Your task to perform on an android device: check google app version Image 0: 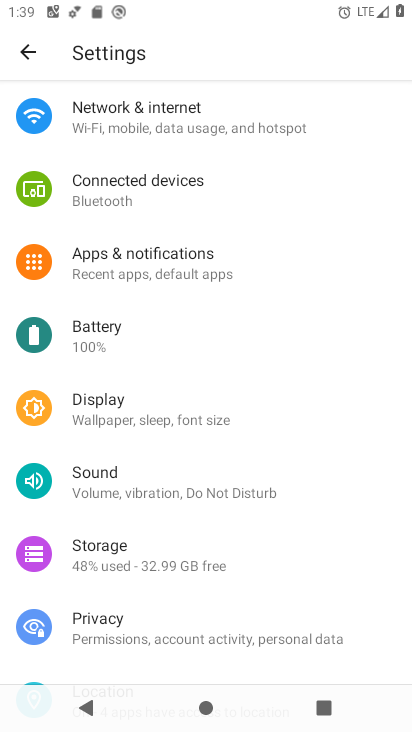
Step 0: press home button
Your task to perform on an android device: check google app version Image 1: 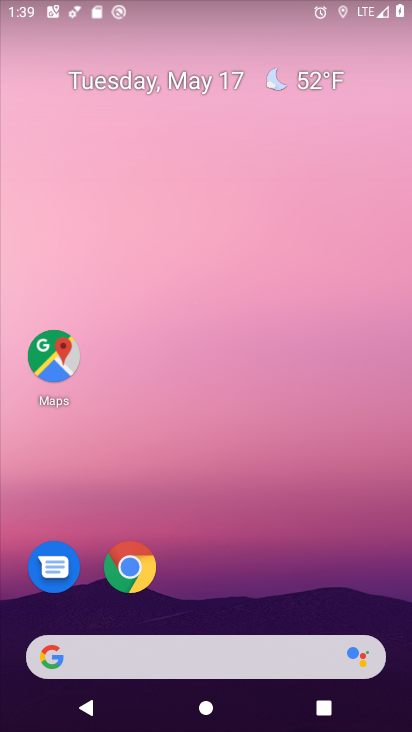
Step 1: drag from (251, 17) to (261, 158)
Your task to perform on an android device: check google app version Image 2: 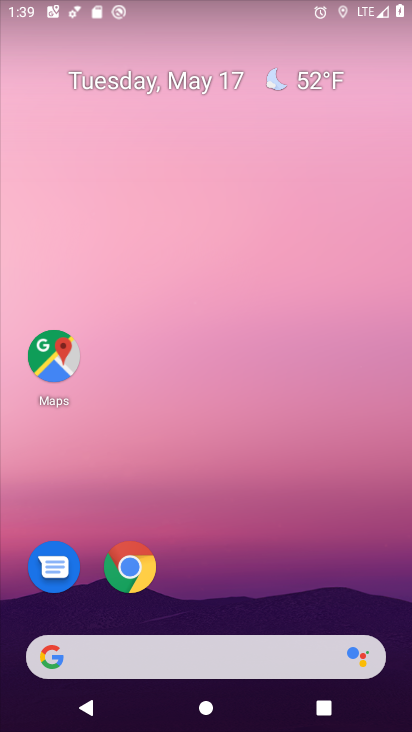
Step 2: drag from (189, 594) to (236, 36)
Your task to perform on an android device: check google app version Image 3: 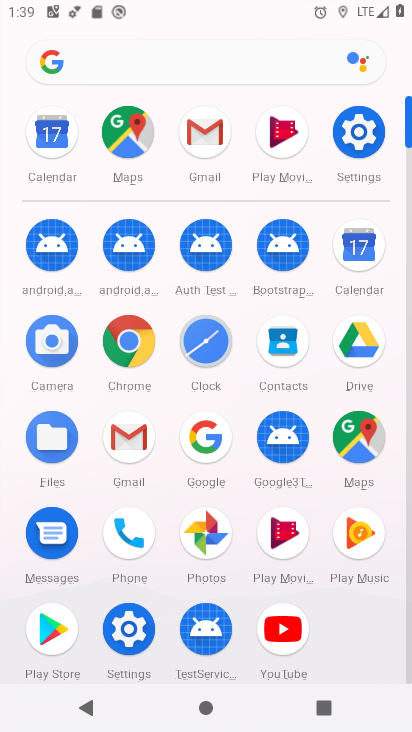
Step 3: click (208, 464)
Your task to perform on an android device: check google app version Image 4: 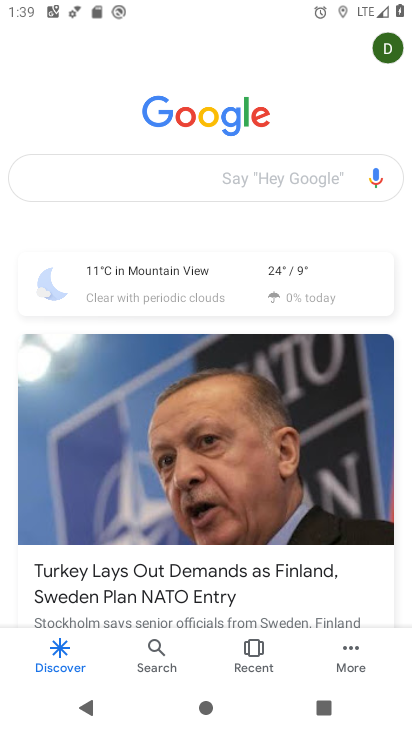
Step 4: click (340, 674)
Your task to perform on an android device: check google app version Image 5: 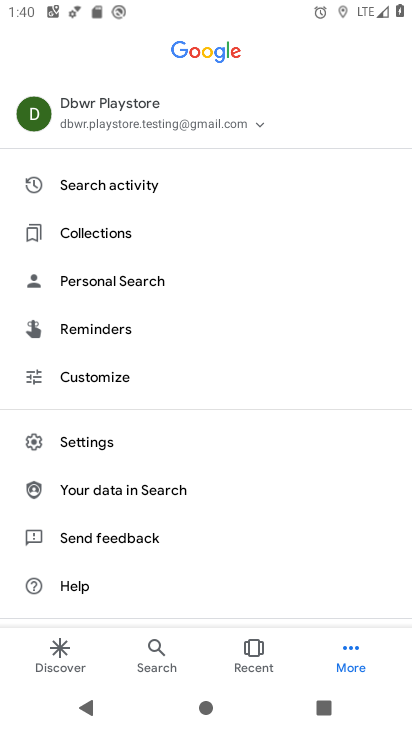
Step 5: click (106, 439)
Your task to perform on an android device: check google app version Image 6: 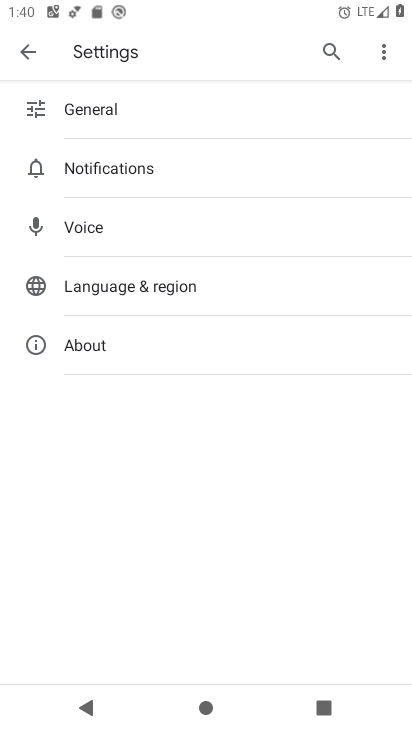
Step 6: click (90, 355)
Your task to perform on an android device: check google app version Image 7: 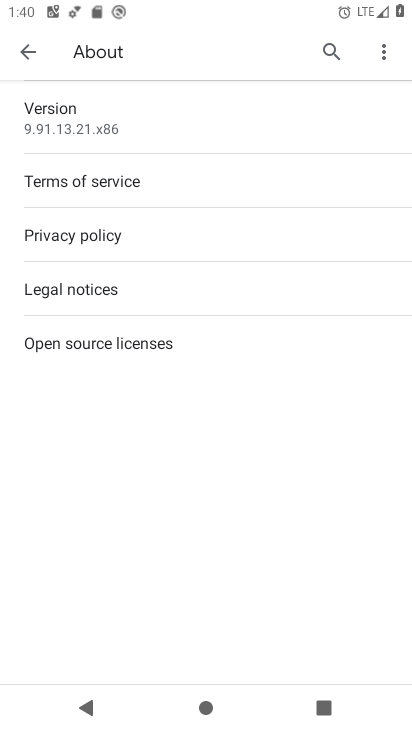
Step 7: task complete